Your task to perform on an android device: Do I have any events tomorrow? Image 0: 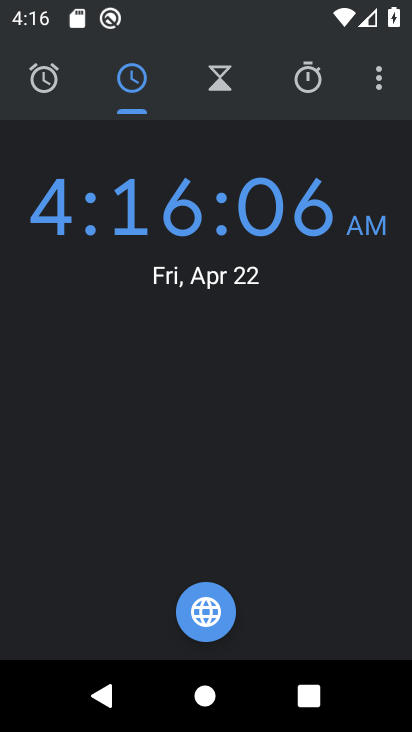
Step 0: press home button
Your task to perform on an android device: Do I have any events tomorrow? Image 1: 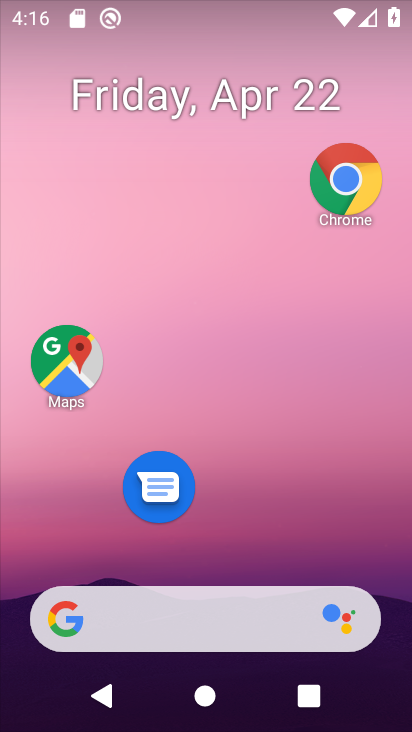
Step 1: drag from (262, 546) to (188, 41)
Your task to perform on an android device: Do I have any events tomorrow? Image 2: 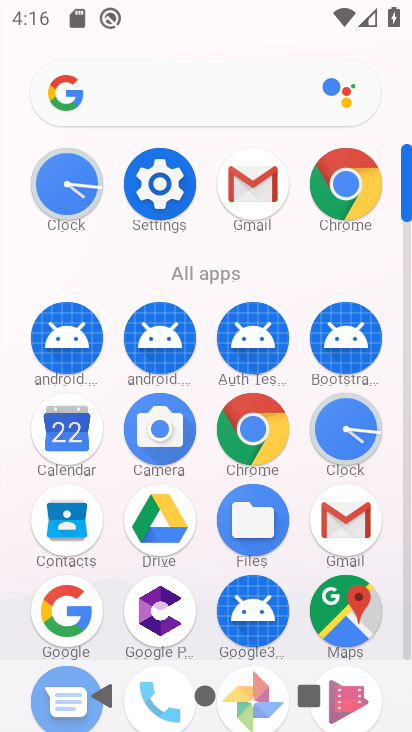
Step 2: click (61, 426)
Your task to perform on an android device: Do I have any events tomorrow? Image 3: 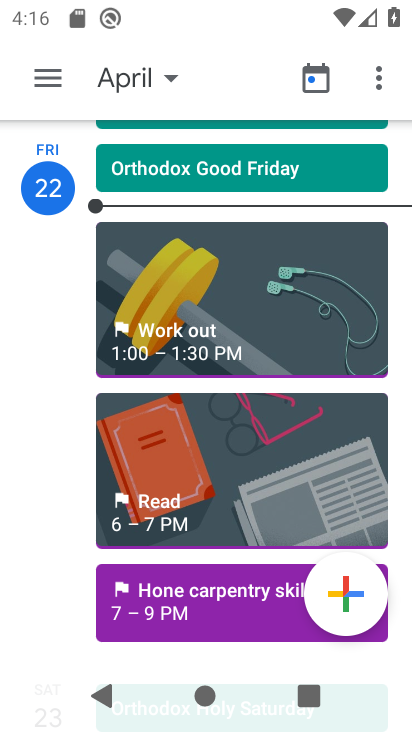
Step 3: click (145, 95)
Your task to perform on an android device: Do I have any events tomorrow? Image 4: 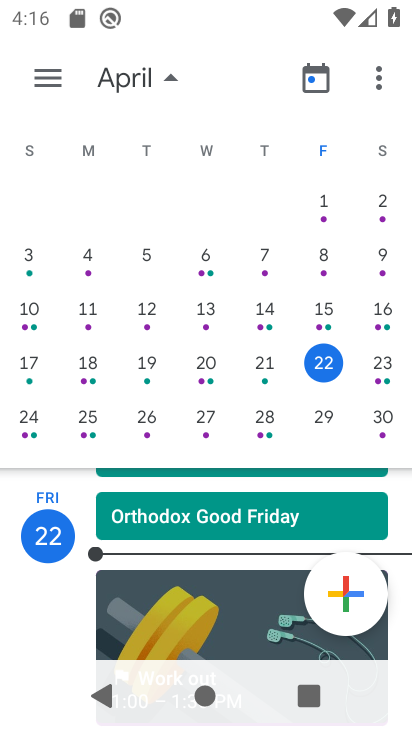
Step 4: click (382, 366)
Your task to perform on an android device: Do I have any events tomorrow? Image 5: 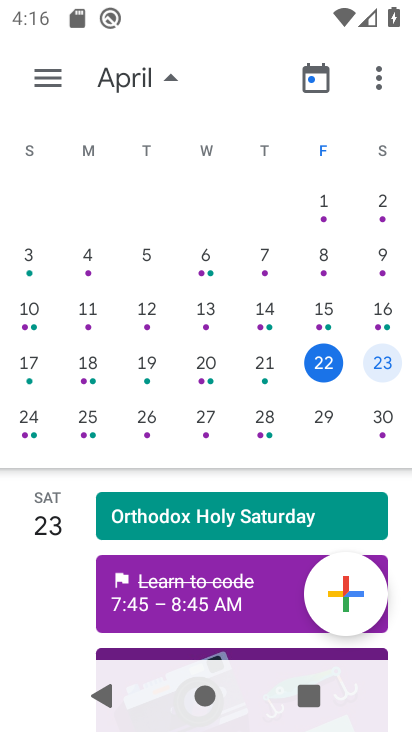
Step 5: task complete